Your task to perform on an android device: delete the emails in spam in the gmail app Image 0: 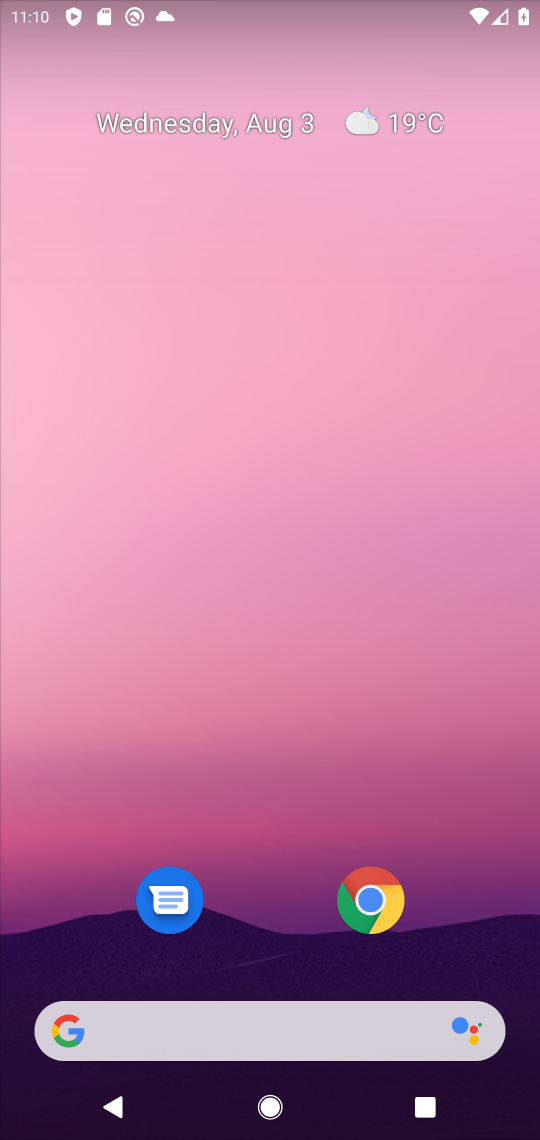
Step 0: press home button
Your task to perform on an android device: delete the emails in spam in the gmail app Image 1: 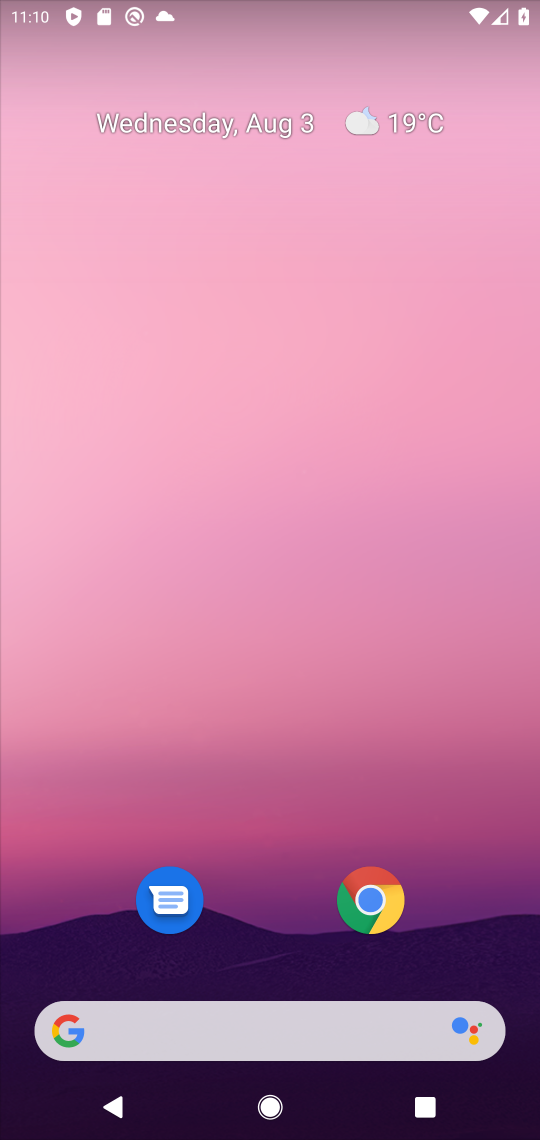
Step 1: drag from (292, 902) to (338, 228)
Your task to perform on an android device: delete the emails in spam in the gmail app Image 2: 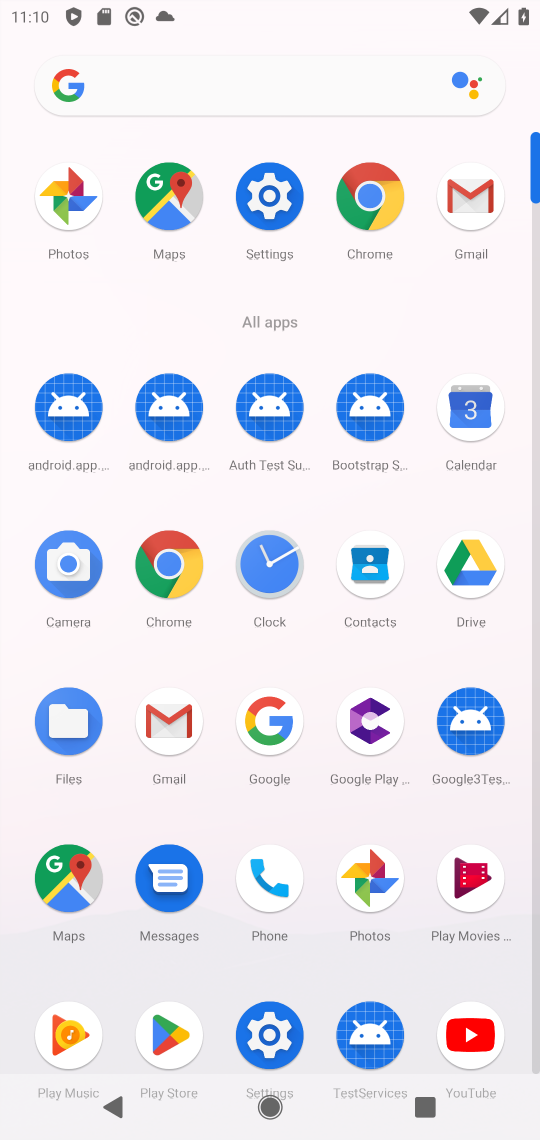
Step 2: click (446, 212)
Your task to perform on an android device: delete the emails in spam in the gmail app Image 3: 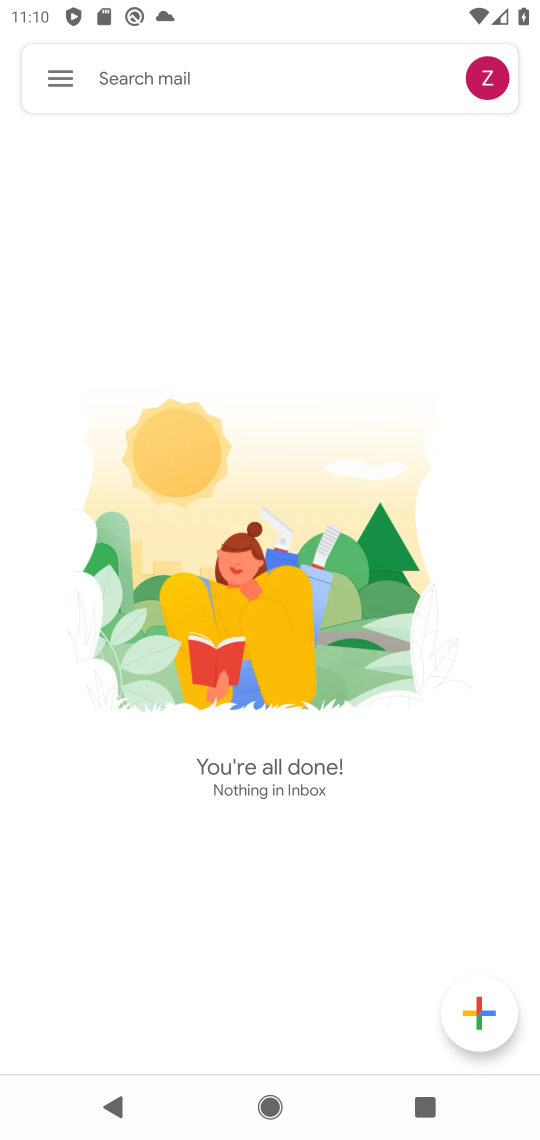
Step 3: click (69, 64)
Your task to perform on an android device: delete the emails in spam in the gmail app Image 4: 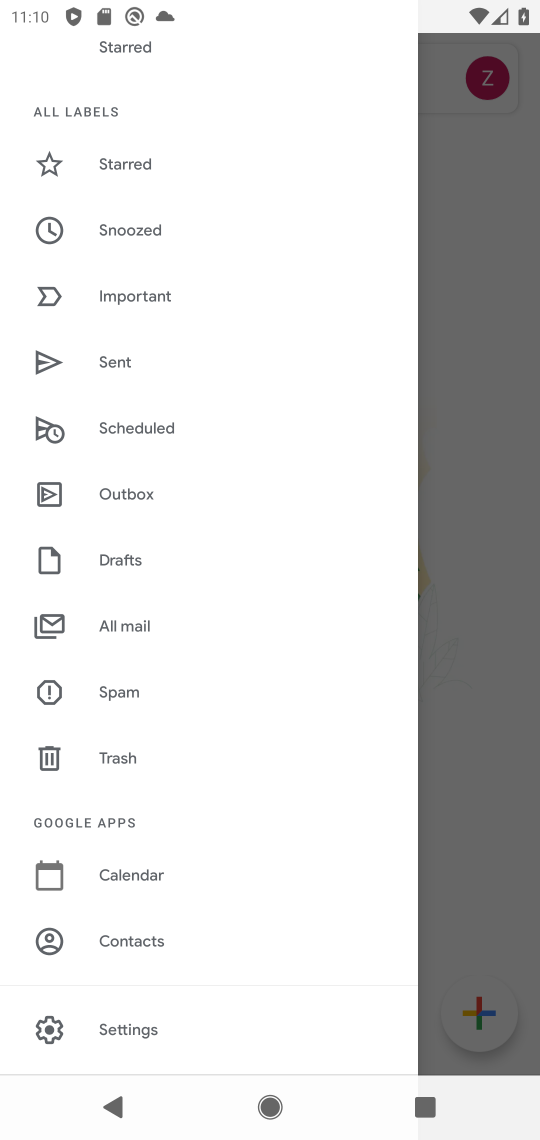
Step 4: click (128, 692)
Your task to perform on an android device: delete the emails in spam in the gmail app Image 5: 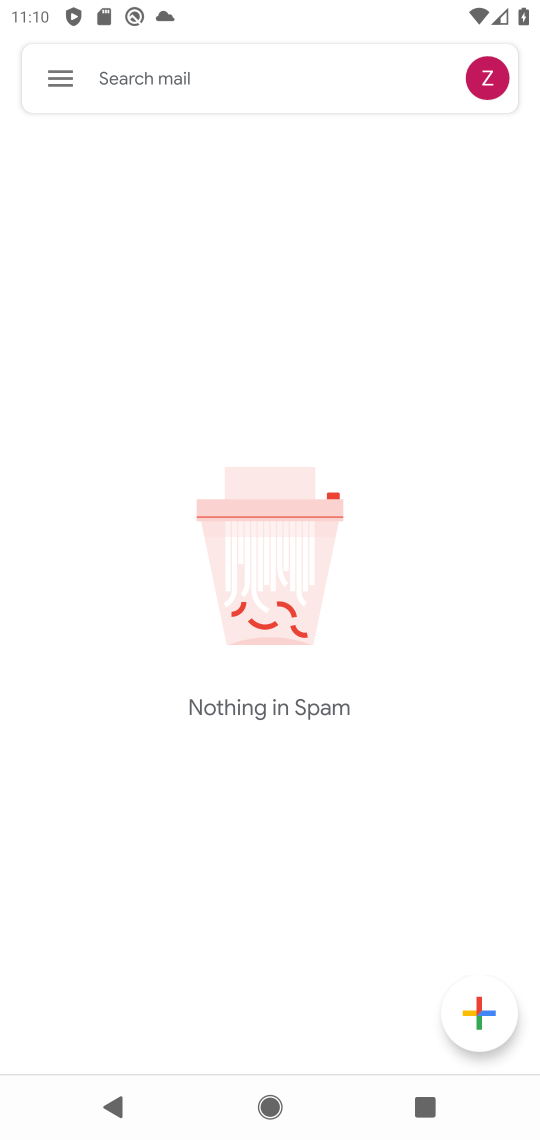
Step 5: task complete